Your task to perform on an android device: Check the weather Image 0: 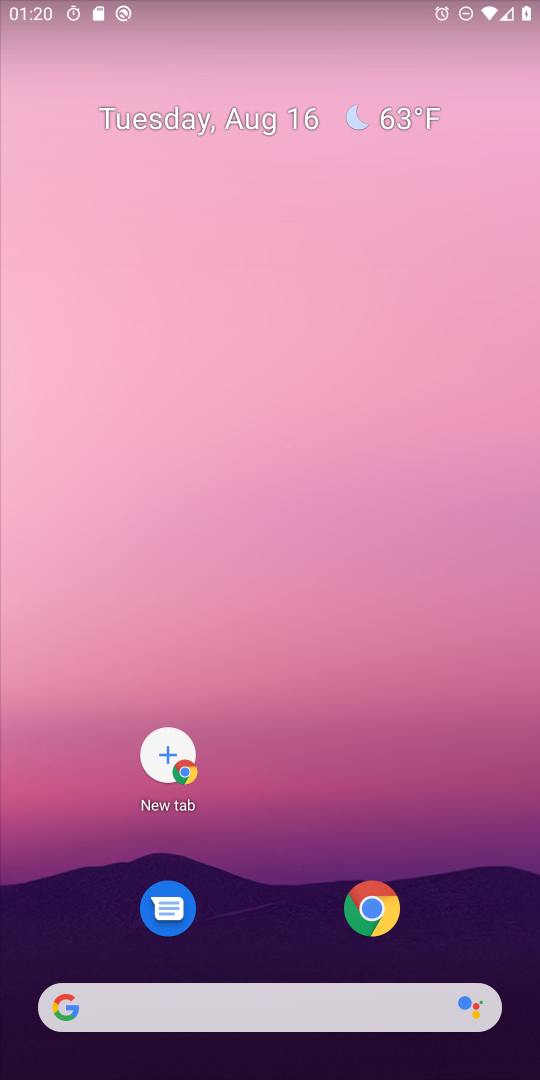
Step 0: click (413, 144)
Your task to perform on an android device: Check the weather Image 1: 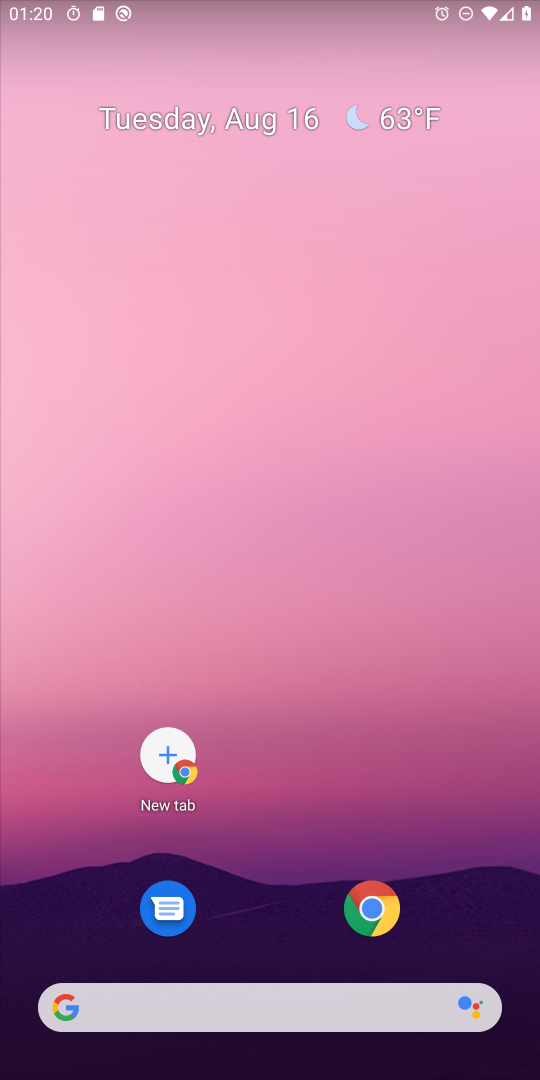
Step 1: click (413, 144)
Your task to perform on an android device: Check the weather Image 2: 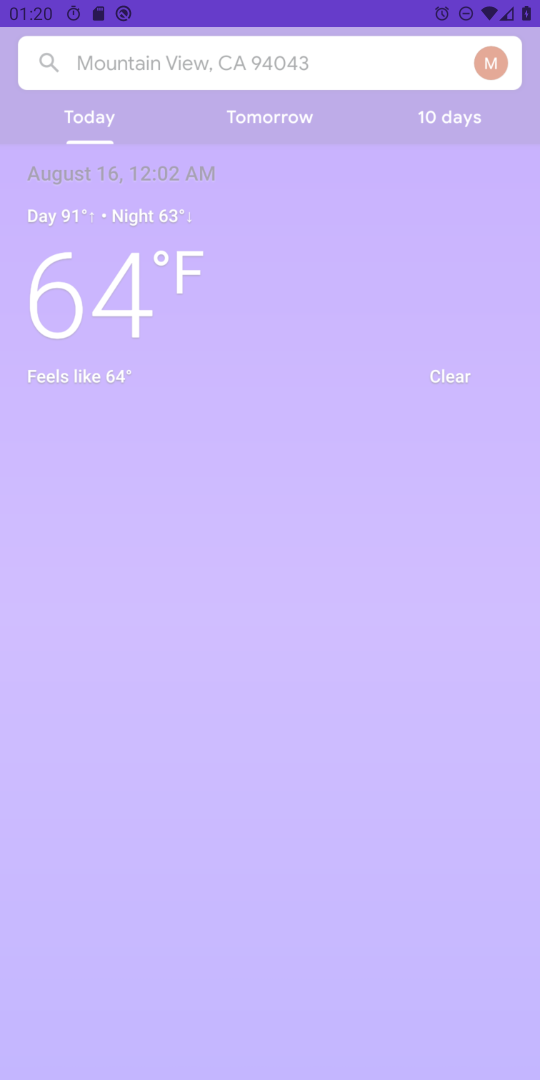
Step 2: click (413, 144)
Your task to perform on an android device: Check the weather Image 3: 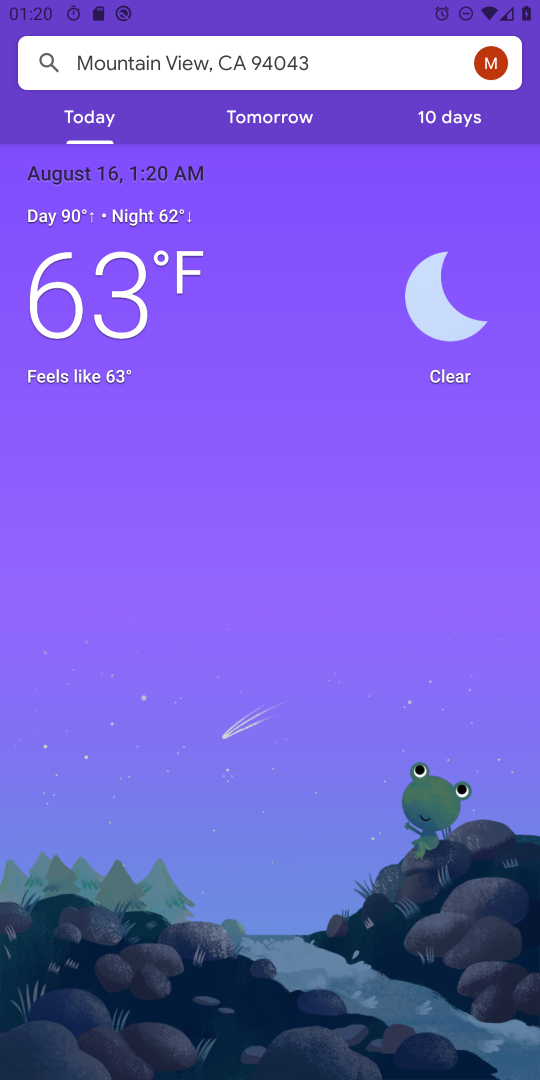
Step 3: task complete